Your task to perform on an android device: Open the web browser Image 0: 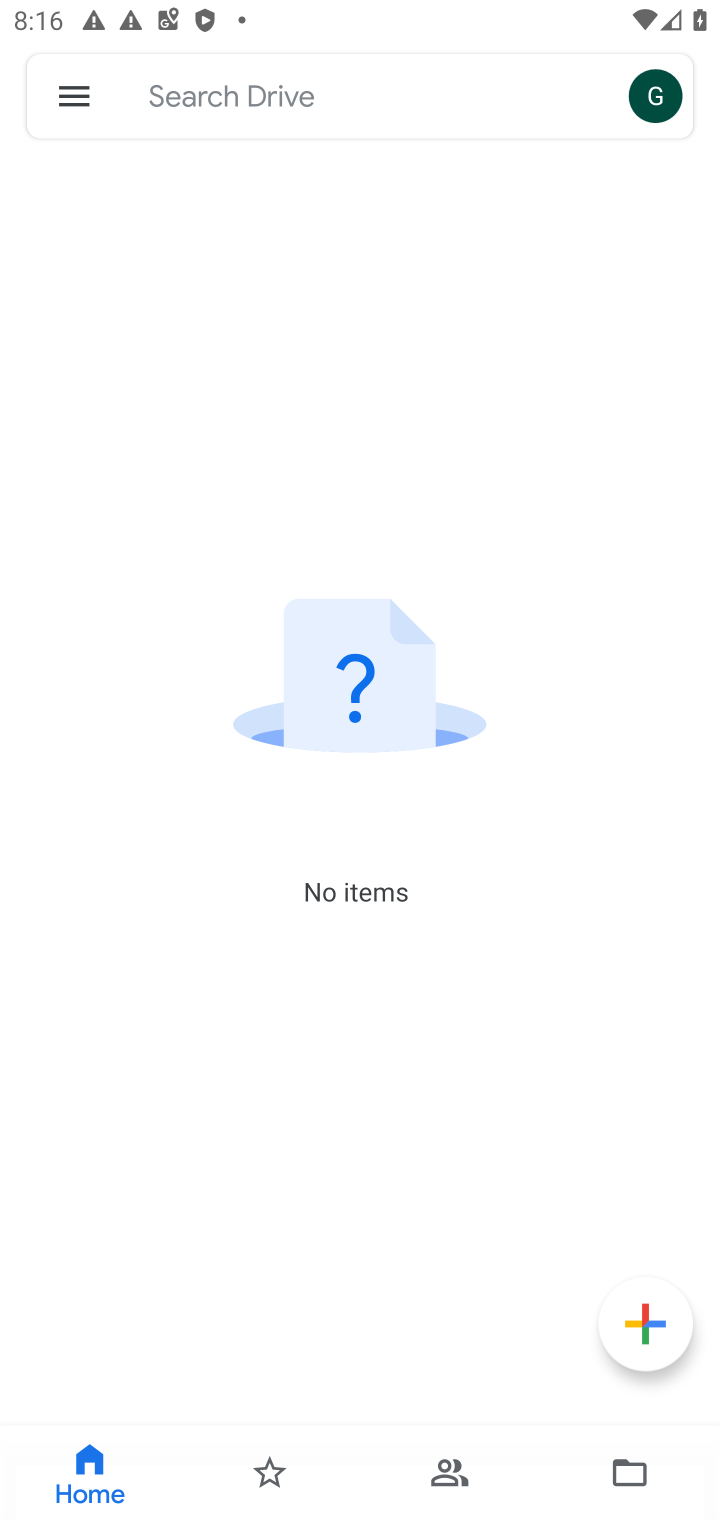
Step 0: press back button
Your task to perform on an android device: Open the web browser Image 1: 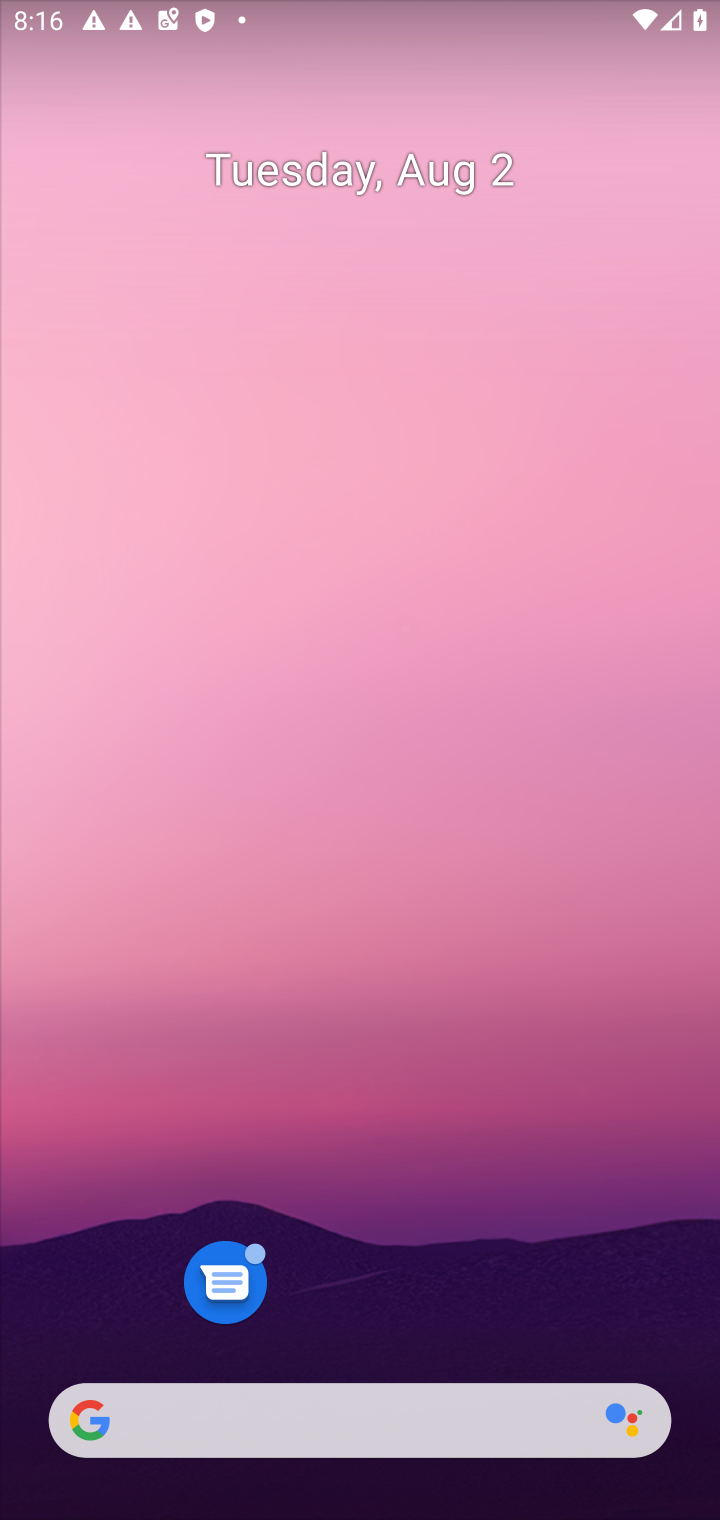
Step 1: click (357, 1412)
Your task to perform on an android device: Open the web browser Image 2: 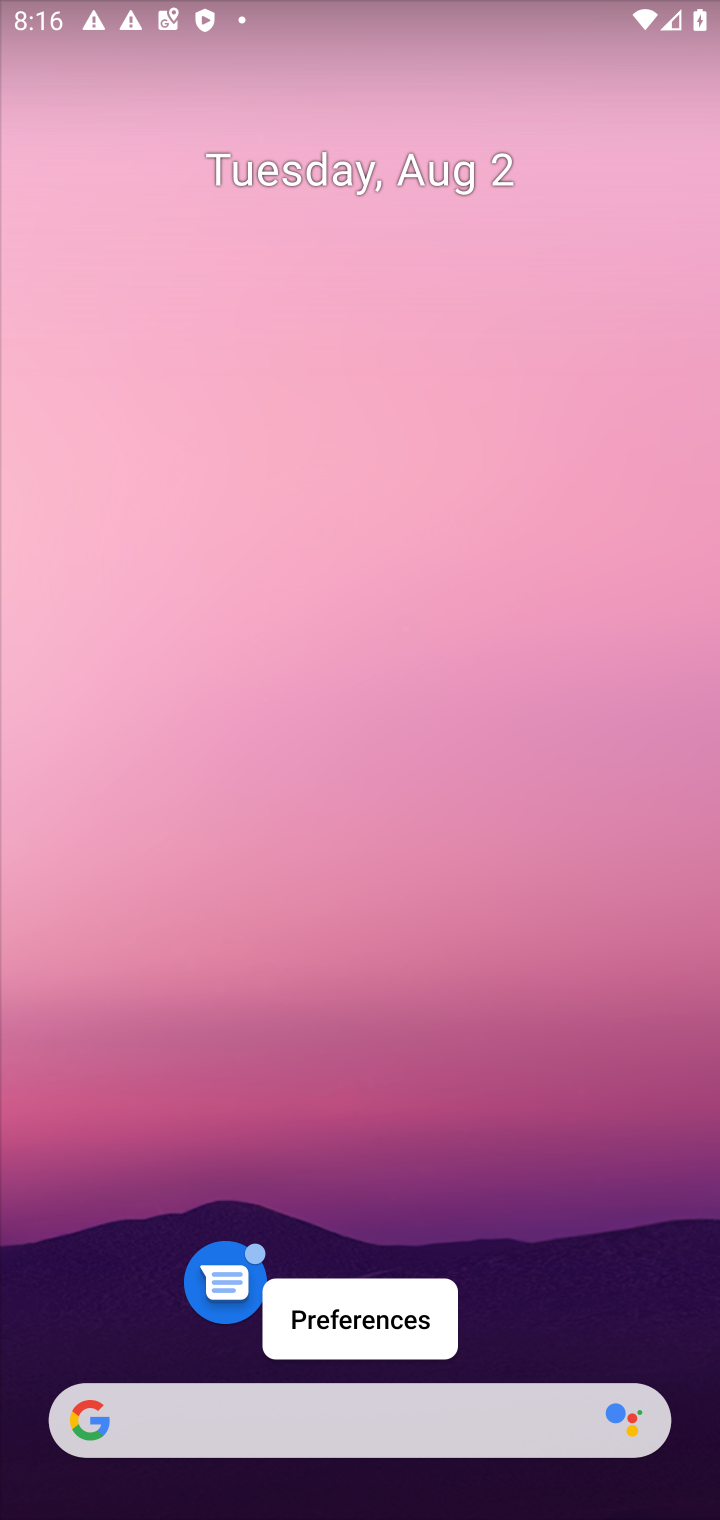
Step 2: click (384, 1460)
Your task to perform on an android device: Open the web browser Image 3: 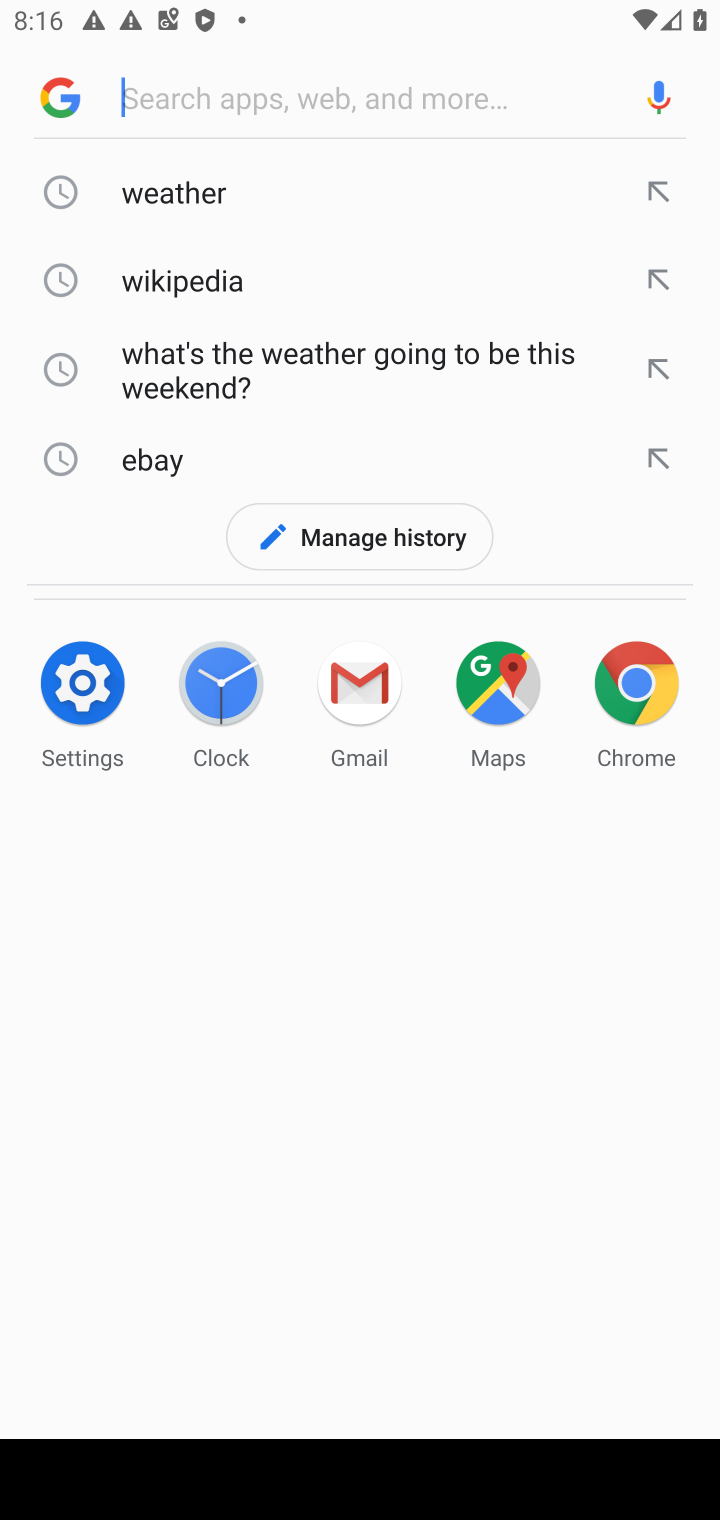
Step 3: task complete